Your task to perform on an android device: check google app version Image 0: 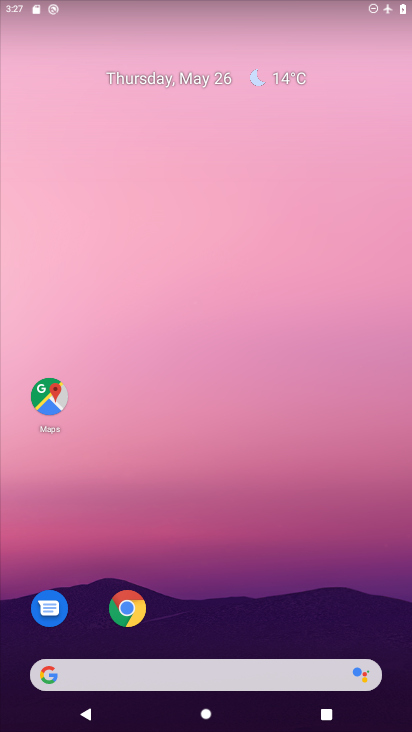
Step 0: drag from (285, 607) to (342, 138)
Your task to perform on an android device: check google app version Image 1: 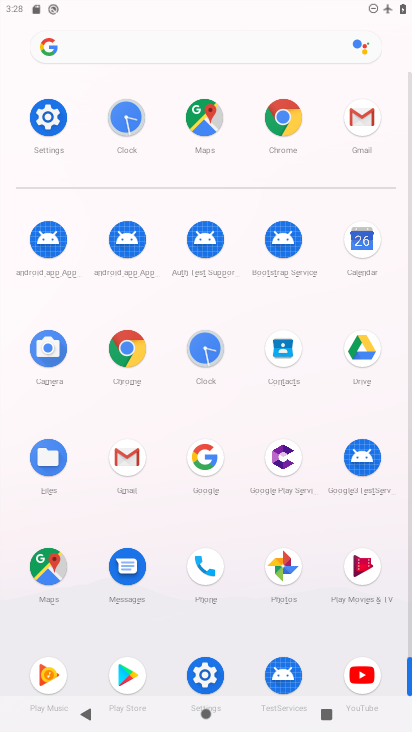
Step 1: click (209, 470)
Your task to perform on an android device: check google app version Image 2: 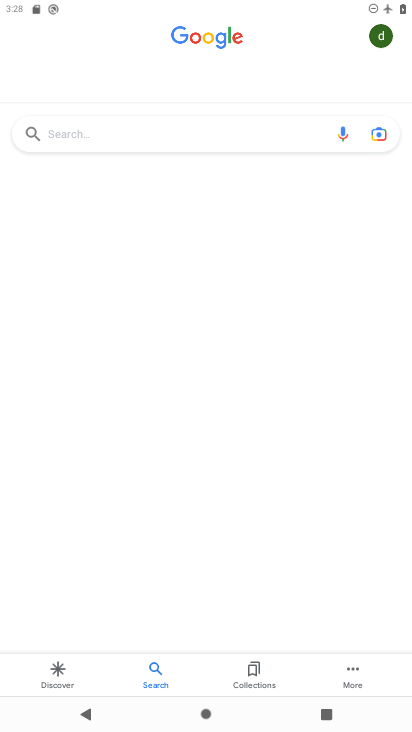
Step 2: click (353, 676)
Your task to perform on an android device: check google app version Image 3: 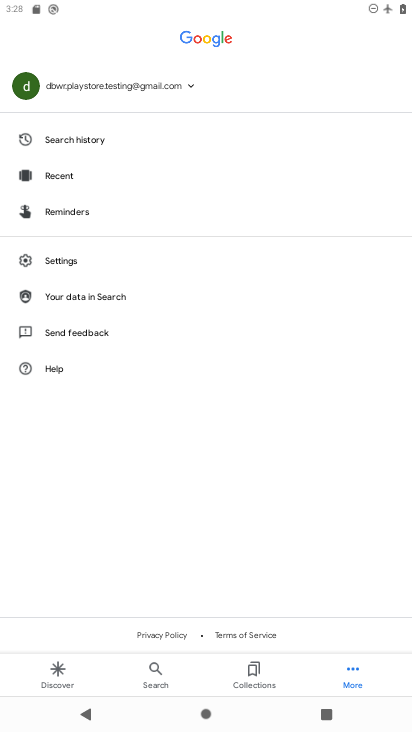
Step 3: click (60, 268)
Your task to perform on an android device: check google app version Image 4: 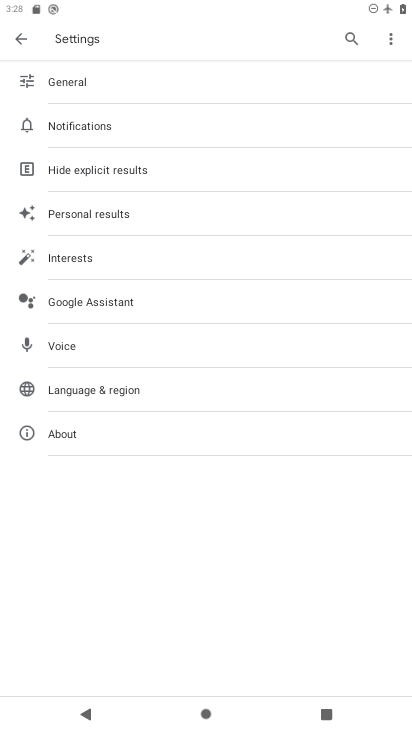
Step 4: click (113, 437)
Your task to perform on an android device: check google app version Image 5: 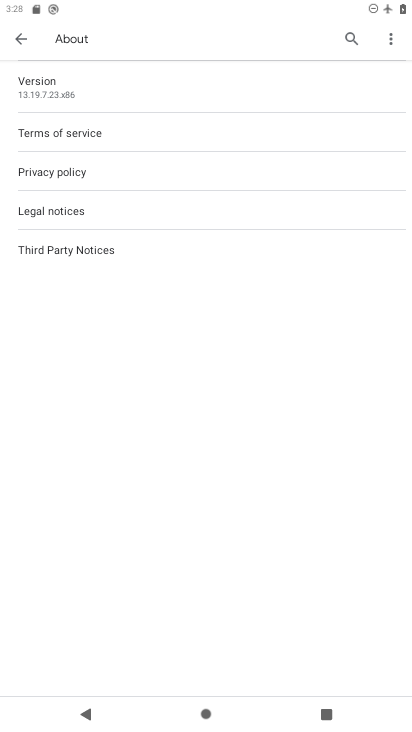
Step 5: click (67, 89)
Your task to perform on an android device: check google app version Image 6: 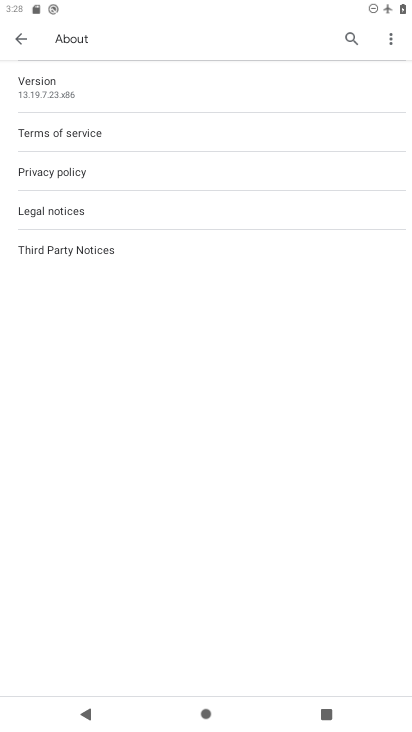
Step 6: click (118, 96)
Your task to perform on an android device: check google app version Image 7: 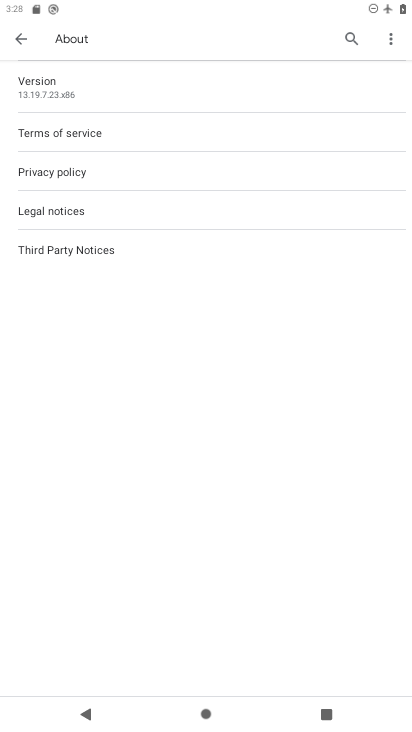
Step 7: click (50, 93)
Your task to perform on an android device: check google app version Image 8: 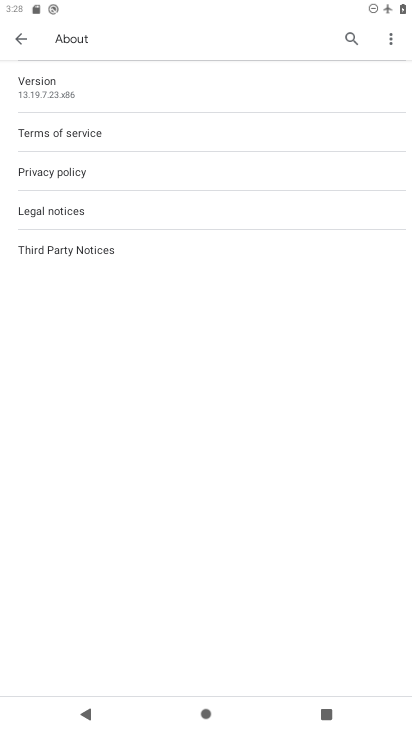
Step 8: task complete